Your task to perform on an android device: delete browsing data in the chrome app Image 0: 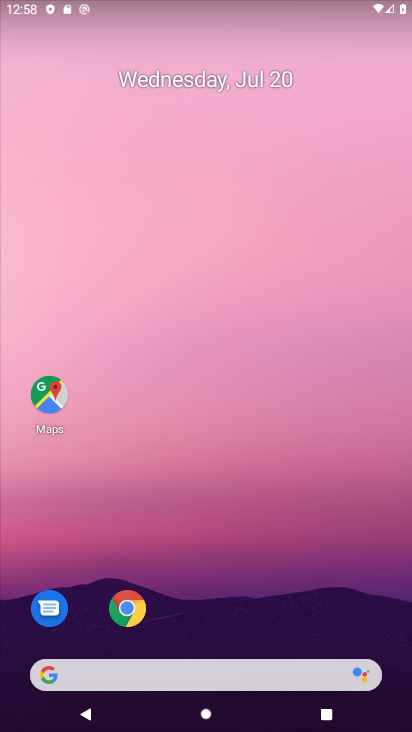
Step 0: drag from (250, 619) to (2, 476)
Your task to perform on an android device: delete browsing data in the chrome app Image 1: 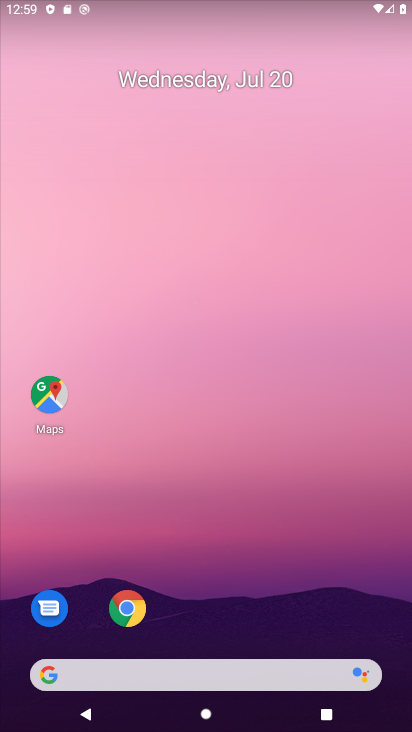
Step 1: click (197, 136)
Your task to perform on an android device: delete browsing data in the chrome app Image 2: 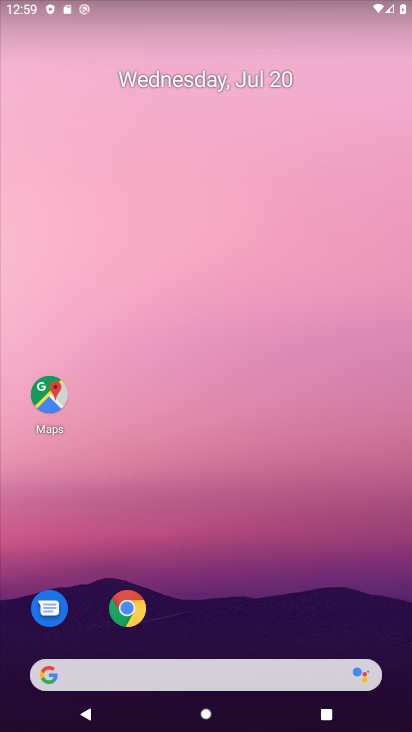
Step 2: drag from (267, 517) to (74, 24)
Your task to perform on an android device: delete browsing data in the chrome app Image 3: 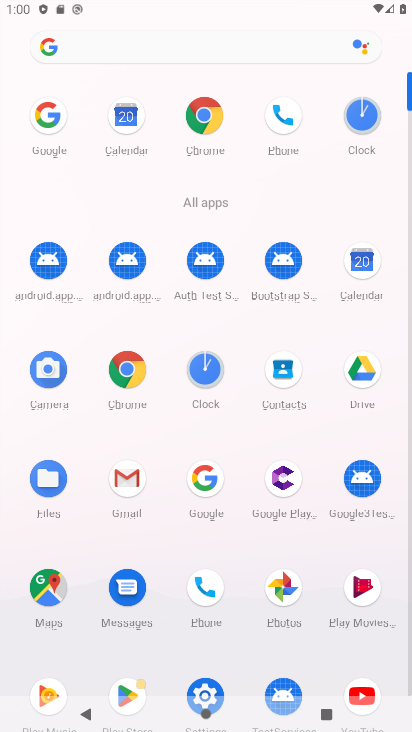
Step 3: click (189, 123)
Your task to perform on an android device: delete browsing data in the chrome app Image 4: 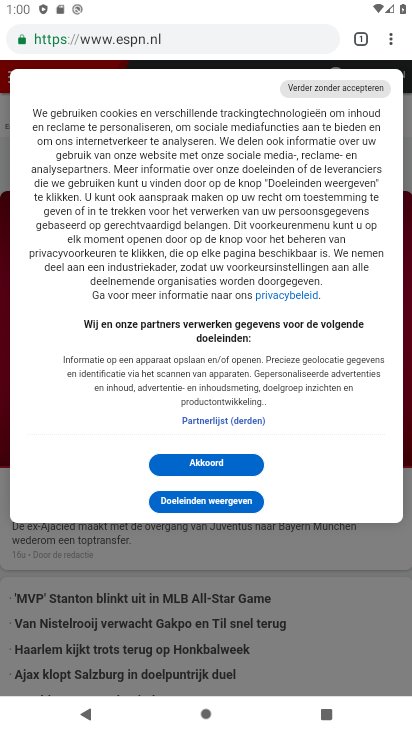
Step 4: task complete